Your task to perform on an android device: Show me popular videos on Youtube Image 0: 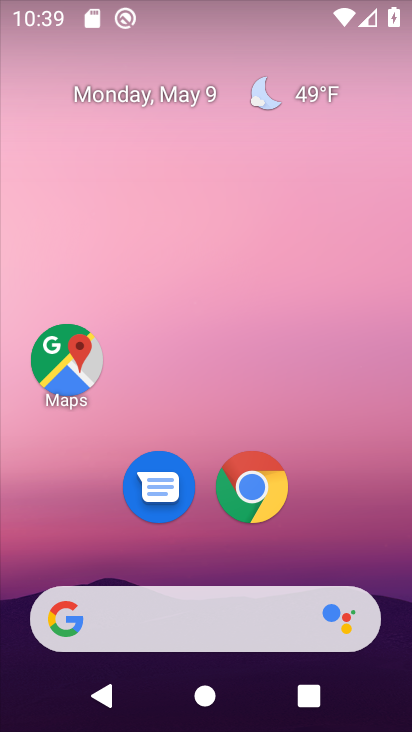
Step 0: drag from (277, 397) to (105, 87)
Your task to perform on an android device: Show me popular videos on Youtube Image 1: 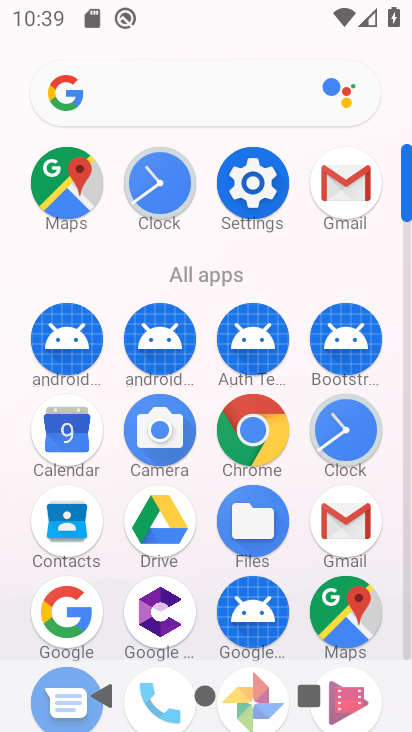
Step 1: drag from (209, 605) to (199, 217)
Your task to perform on an android device: Show me popular videos on Youtube Image 2: 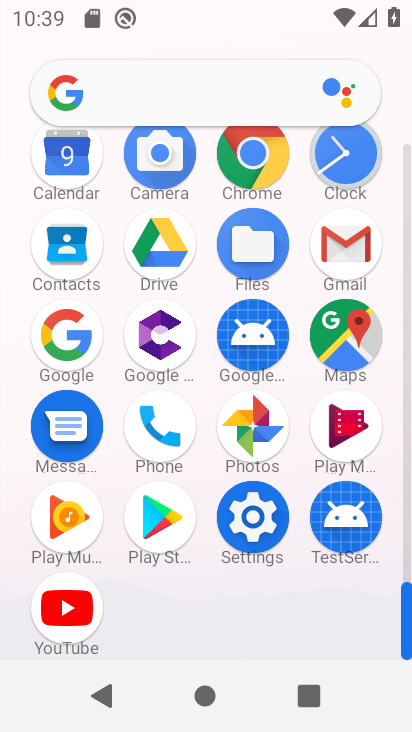
Step 2: click (69, 606)
Your task to perform on an android device: Show me popular videos on Youtube Image 3: 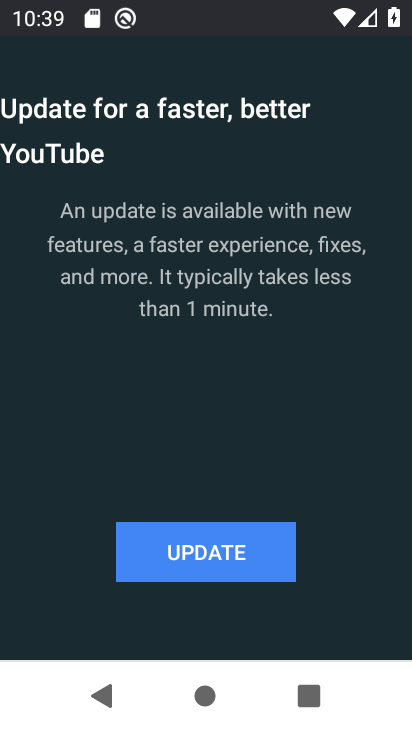
Step 3: click (220, 551)
Your task to perform on an android device: Show me popular videos on Youtube Image 4: 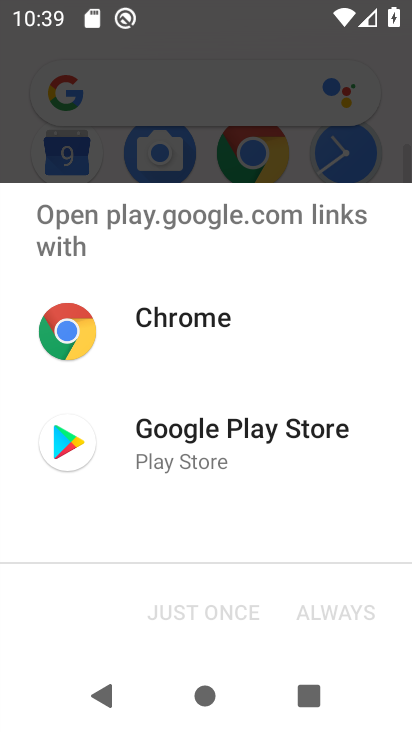
Step 4: click (196, 463)
Your task to perform on an android device: Show me popular videos on Youtube Image 5: 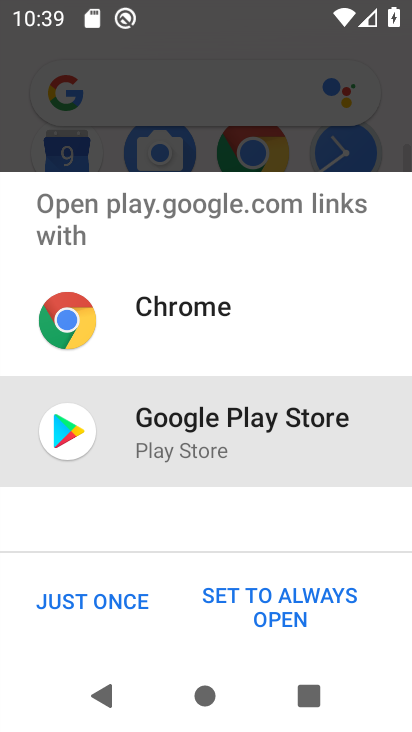
Step 5: click (80, 598)
Your task to perform on an android device: Show me popular videos on Youtube Image 6: 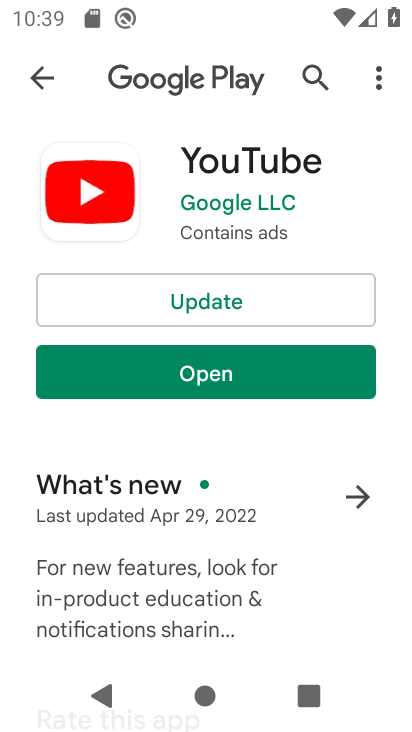
Step 6: click (193, 303)
Your task to perform on an android device: Show me popular videos on Youtube Image 7: 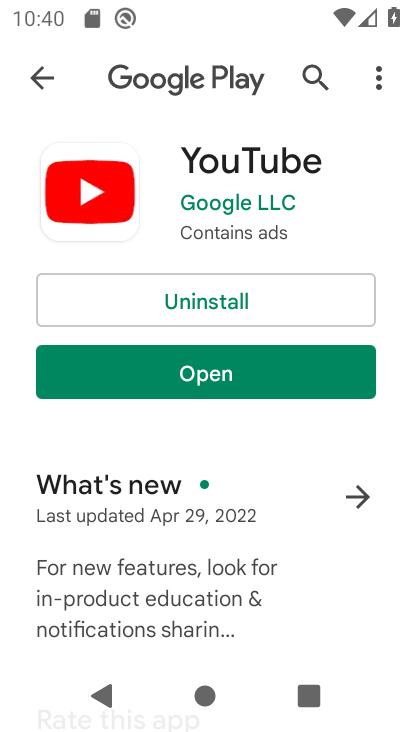
Step 7: click (193, 375)
Your task to perform on an android device: Show me popular videos on Youtube Image 8: 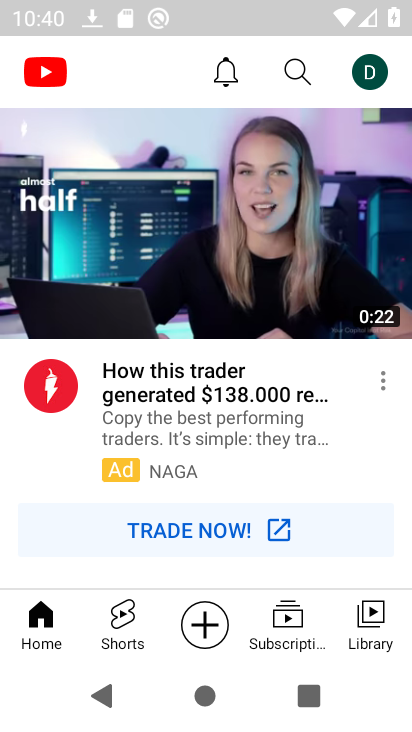
Step 8: drag from (127, 233) to (129, 482)
Your task to perform on an android device: Show me popular videos on Youtube Image 9: 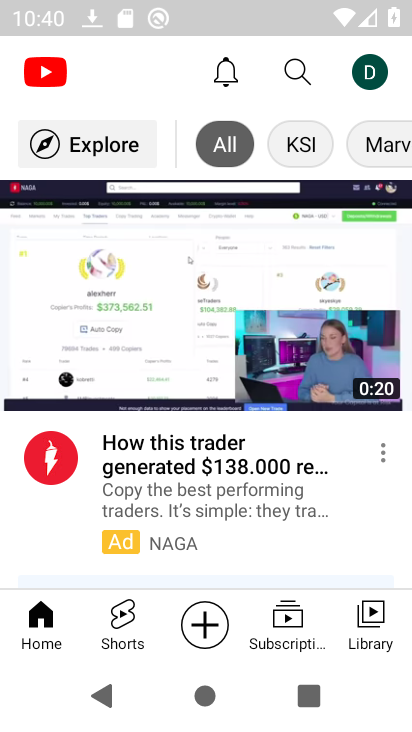
Step 9: click (115, 160)
Your task to perform on an android device: Show me popular videos on Youtube Image 10: 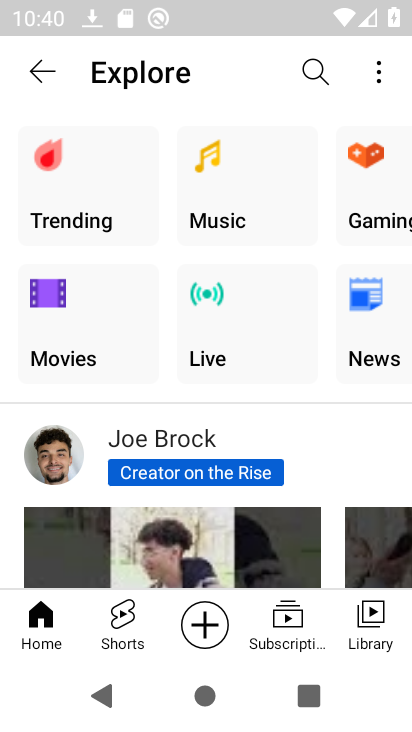
Step 10: click (98, 203)
Your task to perform on an android device: Show me popular videos on Youtube Image 11: 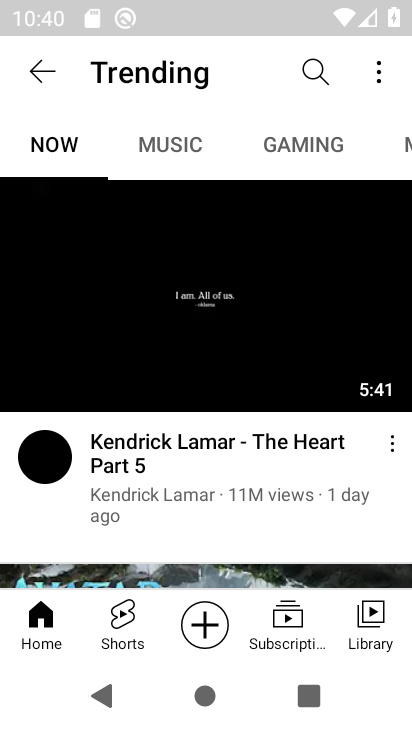
Step 11: click (168, 320)
Your task to perform on an android device: Show me popular videos on Youtube Image 12: 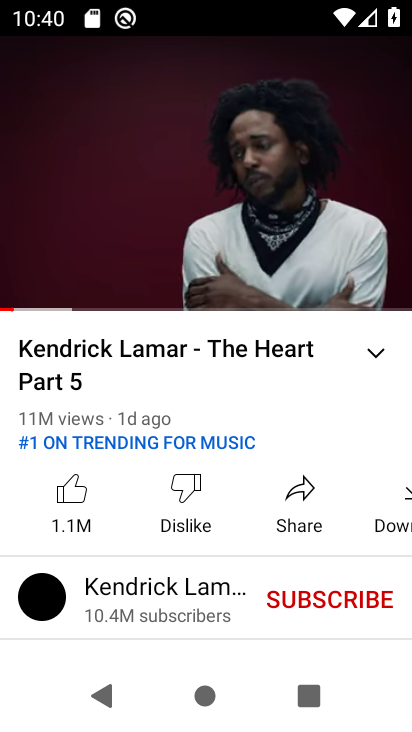
Step 12: click (209, 210)
Your task to perform on an android device: Show me popular videos on Youtube Image 13: 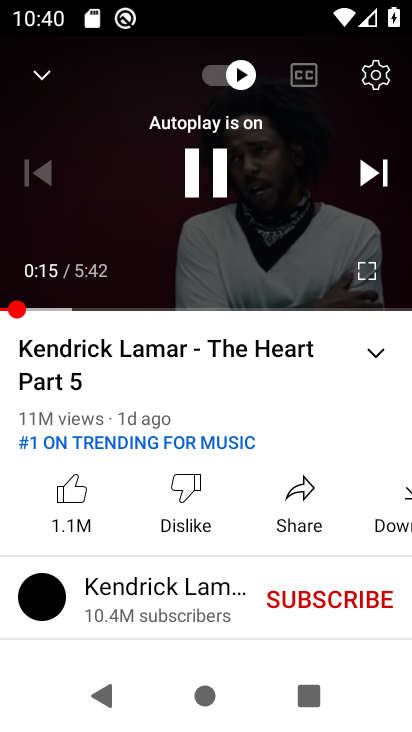
Step 13: click (215, 187)
Your task to perform on an android device: Show me popular videos on Youtube Image 14: 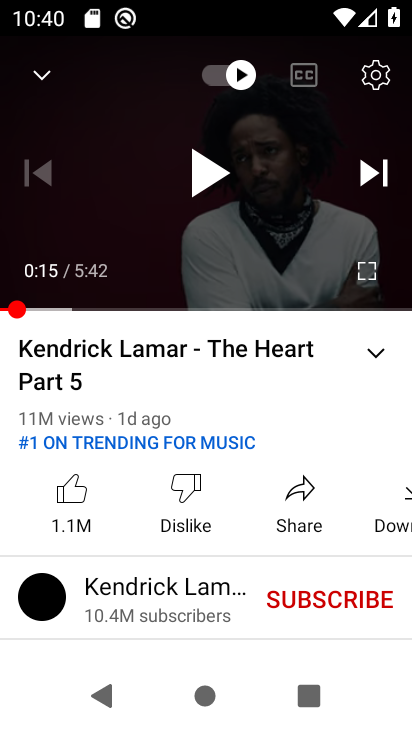
Step 14: task complete